Your task to perform on an android device: set default search engine in the chrome app Image 0: 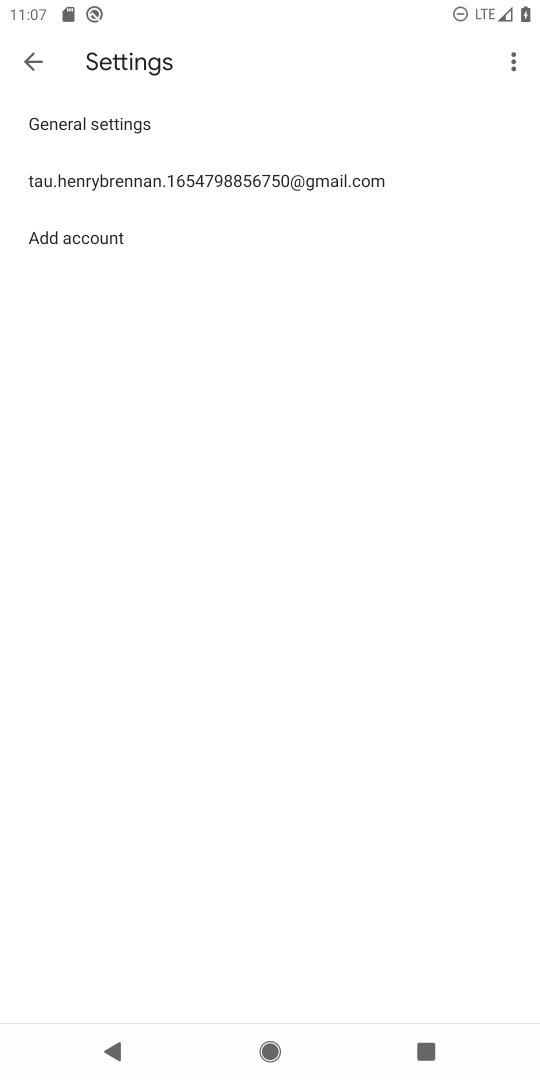
Step 0: press home button
Your task to perform on an android device: set default search engine in the chrome app Image 1: 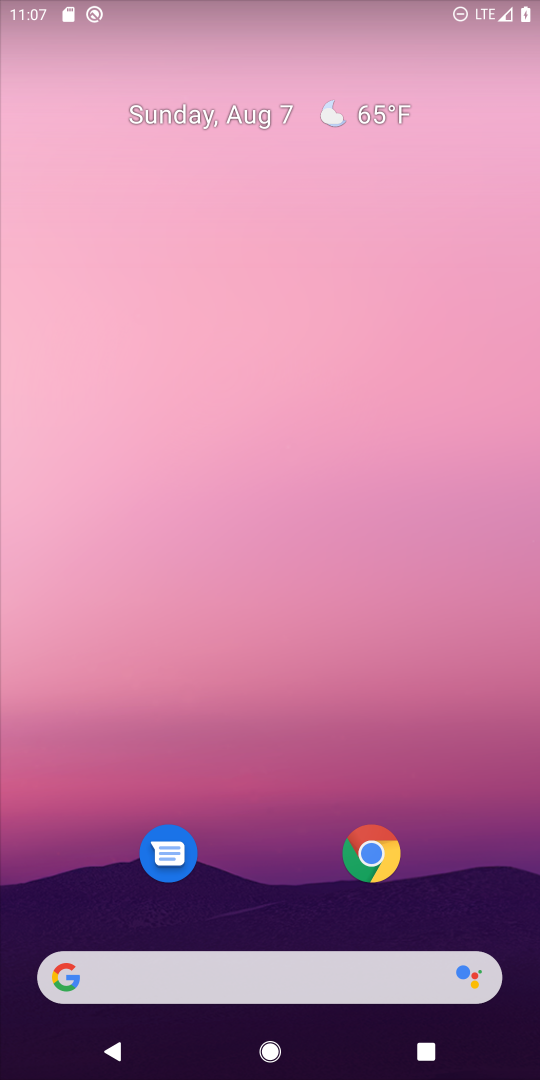
Step 1: drag from (300, 877) to (286, 296)
Your task to perform on an android device: set default search engine in the chrome app Image 2: 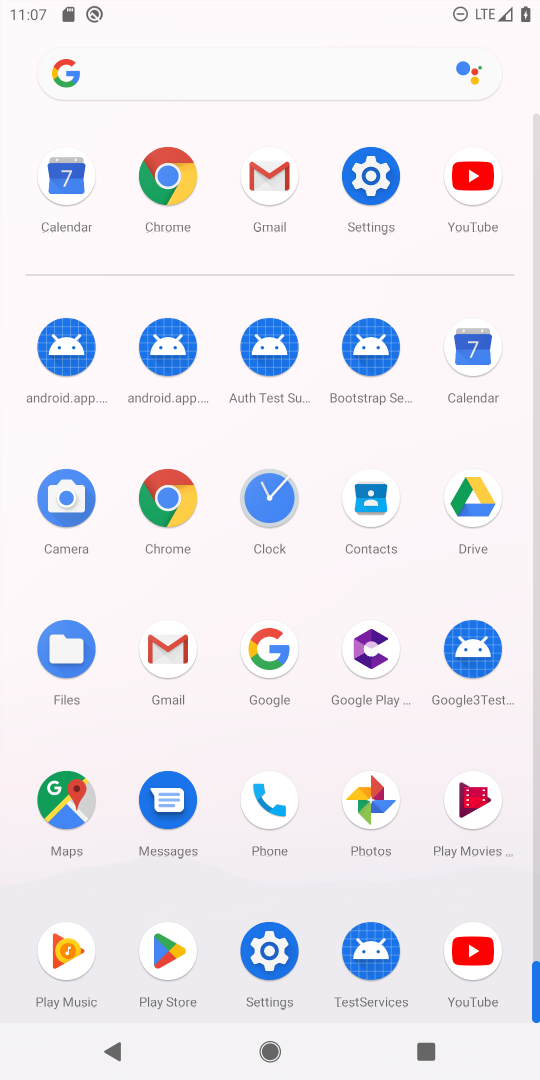
Step 2: click (161, 166)
Your task to perform on an android device: set default search engine in the chrome app Image 3: 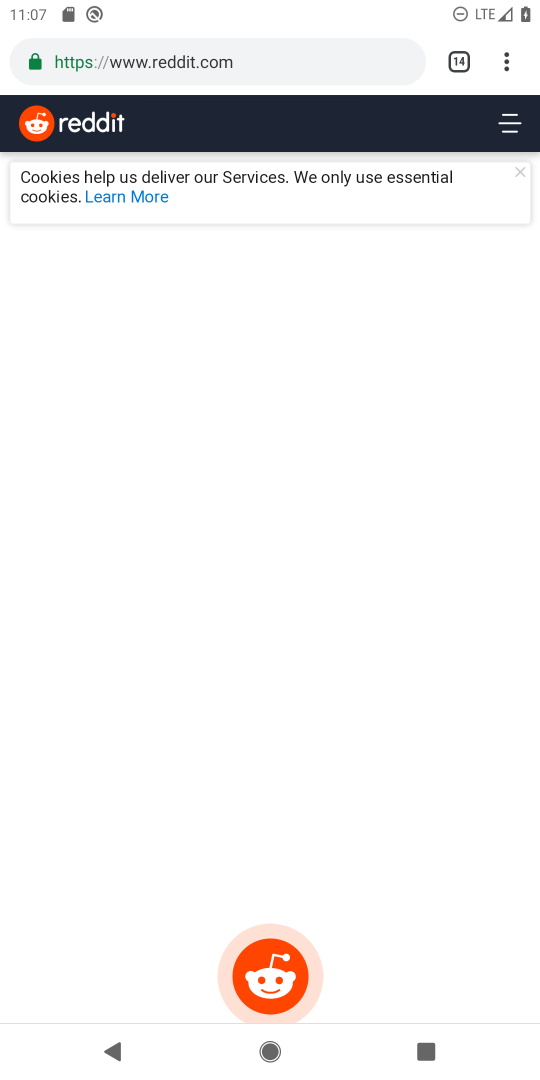
Step 3: click (503, 49)
Your task to perform on an android device: set default search engine in the chrome app Image 4: 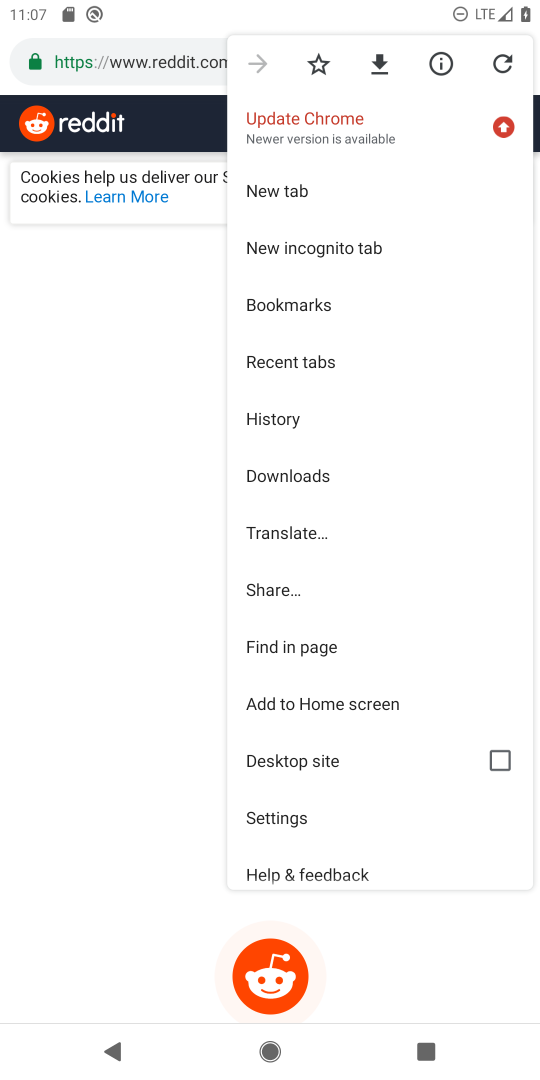
Step 4: click (298, 819)
Your task to perform on an android device: set default search engine in the chrome app Image 5: 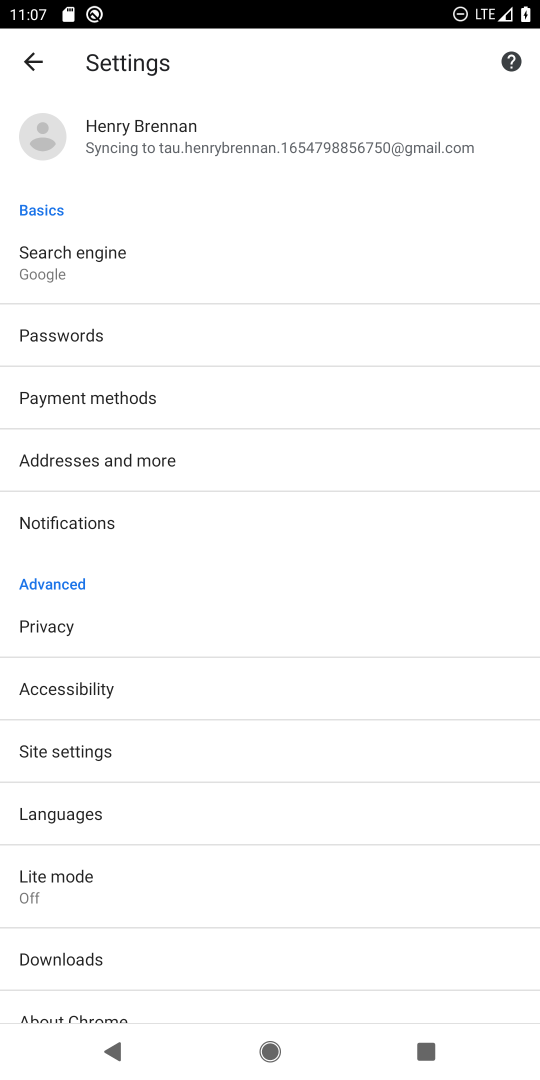
Step 5: click (143, 267)
Your task to perform on an android device: set default search engine in the chrome app Image 6: 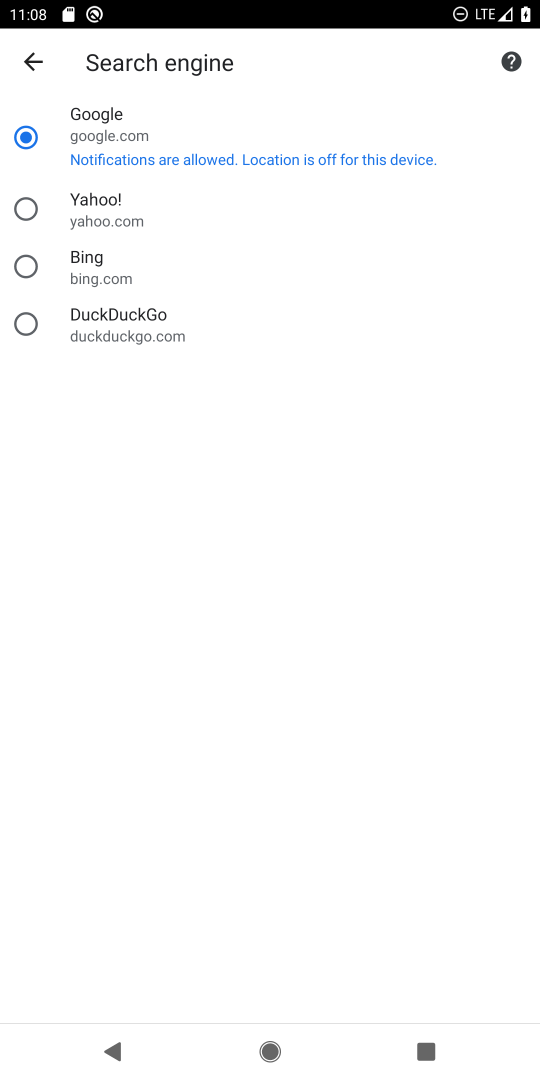
Step 6: click (41, 277)
Your task to perform on an android device: set default search engine in the chrome app Image 7: 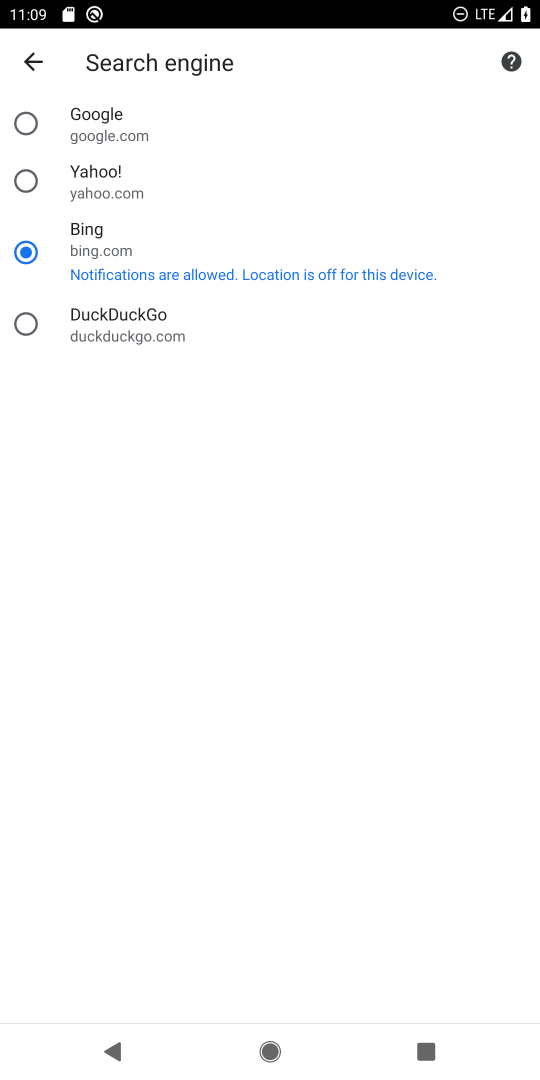
Step 7: task complete